Your task to perform on an android device: Do I have any events today? Image 0: 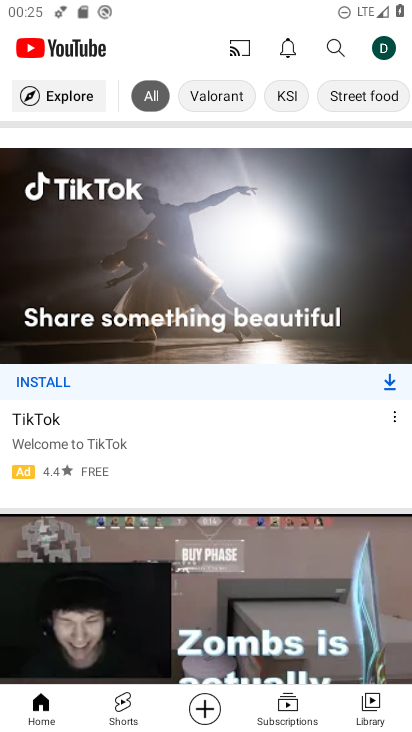
Step 0: press home button
Your task to perform on an android device: Do I have any events today? Image 1: 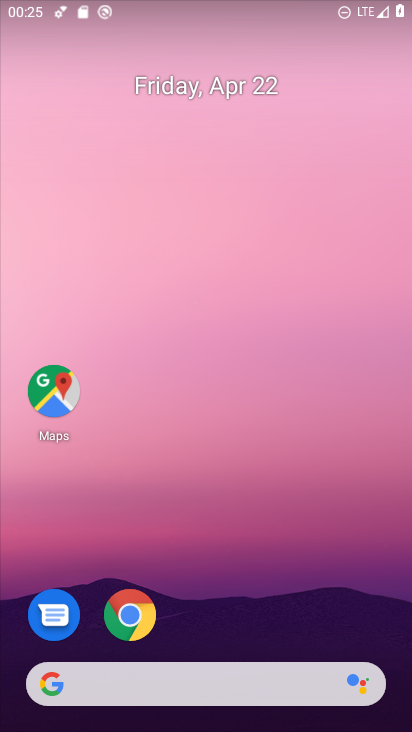
Step 1: task complete